Your task to perform on an android device: turn pop-ups off in chrome Image 0: 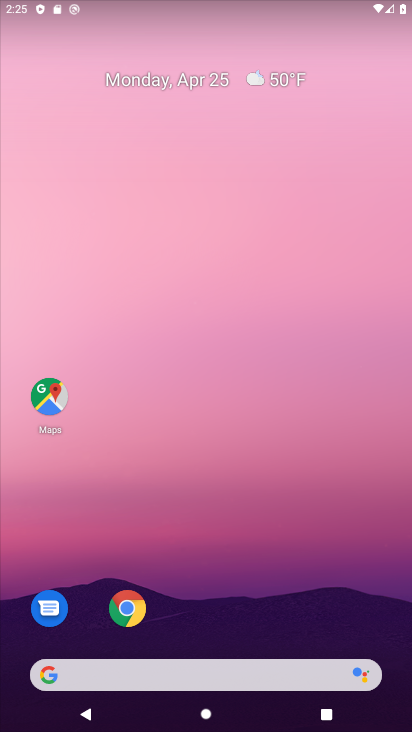
Step 0: click (118, 606)
Your task to perform on an android device: turn pop-ups off in chrome Image 1: 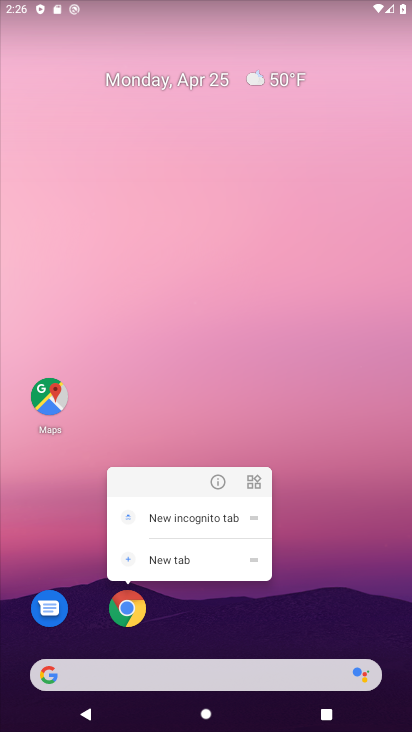
Step 1: click (126, 603)
Your task to perform on an android device: turn pop-ups off in chrome Image 2: 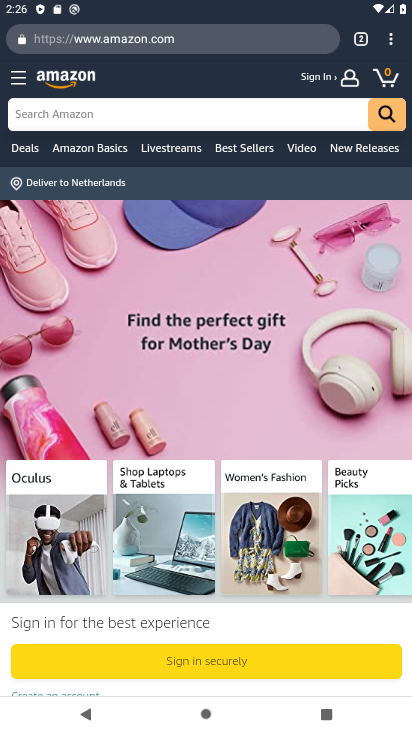
Step 2: drag from (392, 44) to (261, 507)
Your task to perform on an android device: turn pop-ups off in chrome Image 3: 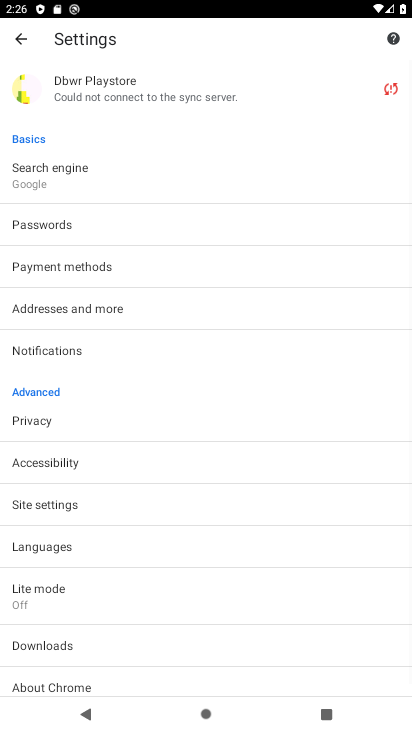
Step 3: click (93, 494)
Your task to perform on an android device: turn pop-ups off in chrome Image 4: 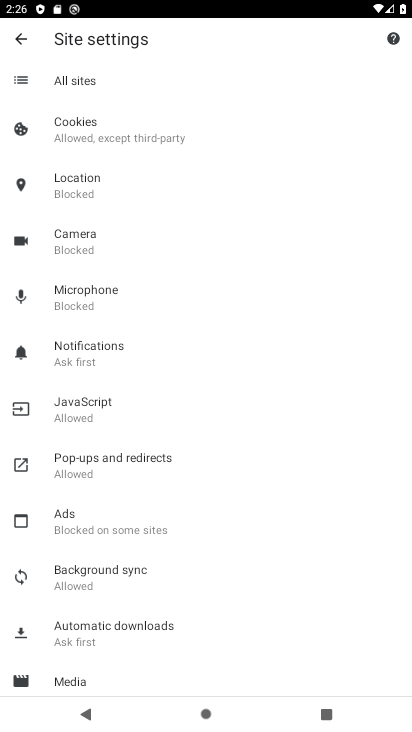
Step 4: click (129, 451)
Your task to perform on an android device: turn pop-ups off in chrome Image 5: 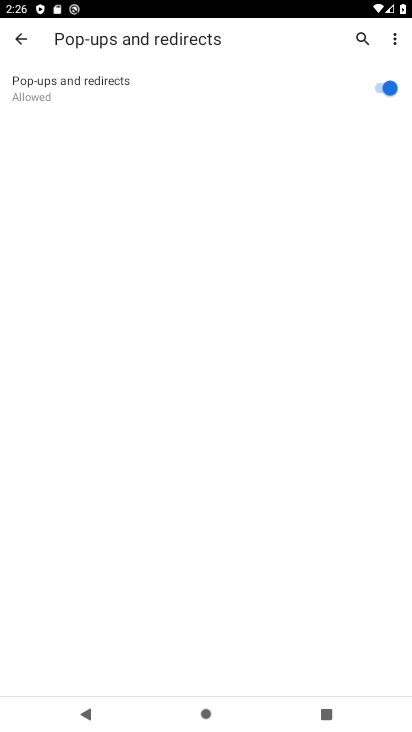
Step 5: click (371, 86)
Your task to perform on an android device: turn pop-ups off in chrome Image 6: 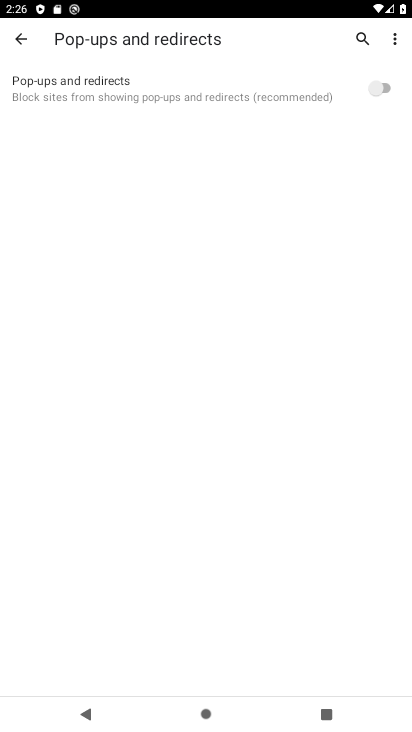
Step 6: task complete